Your task to perform on an android device: create a new album in the google photos Image 0: 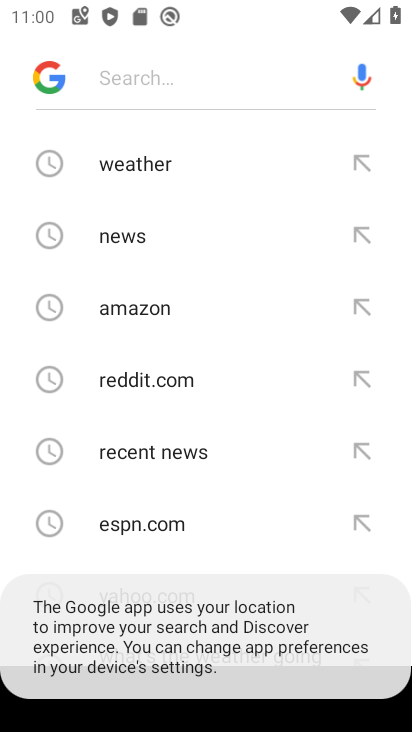
Step 0: press home button
Your task to perform on an android device: create a new album in the google photos Image 1: 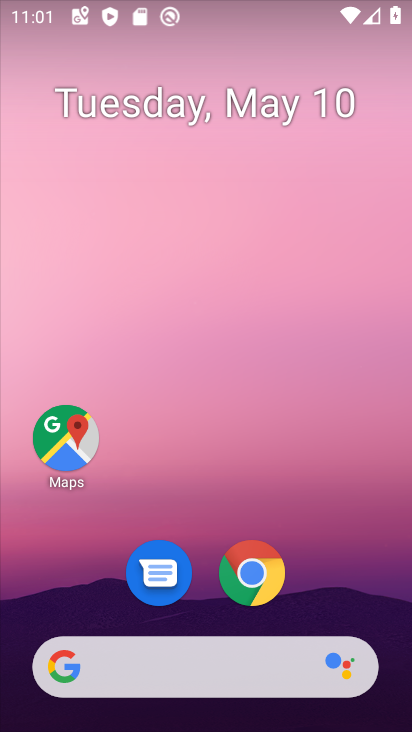
Step 1: drag from (213, 726) to (219, 103)
Your task to perform on an android device: create a new album in the google photos Image 2: 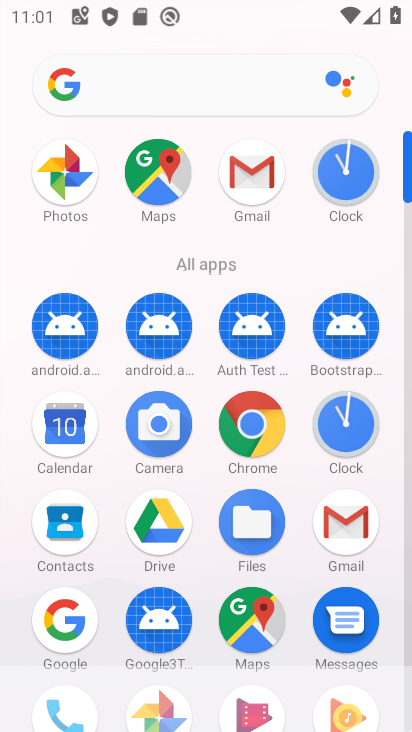
Step 2: click (65, 178)
Your task to perform on an android device: create a new album in the google photos Image 3: 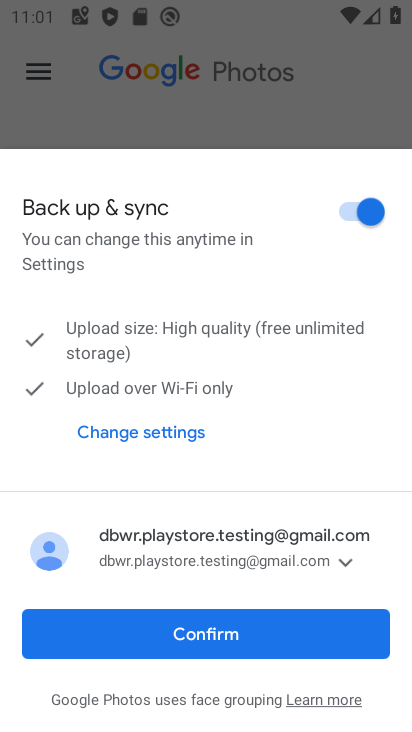
Step 3: click (197, 635)
Your task to perform on an android device: create a new album in the google photos Image 4: 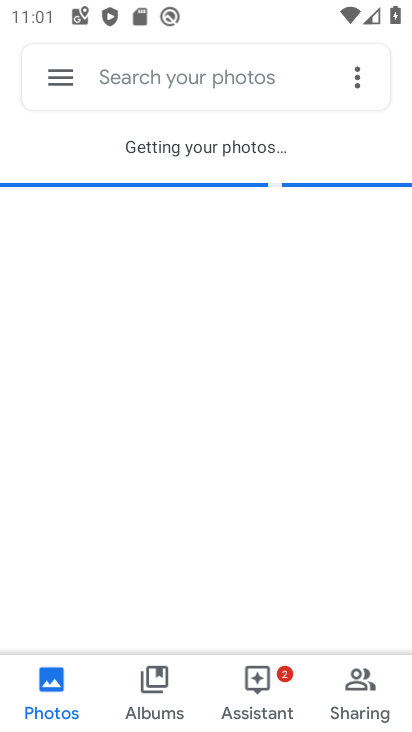
Step 4: click (359, 82)
Your task to perform on an android device: create a new album in the google photos Image 5: 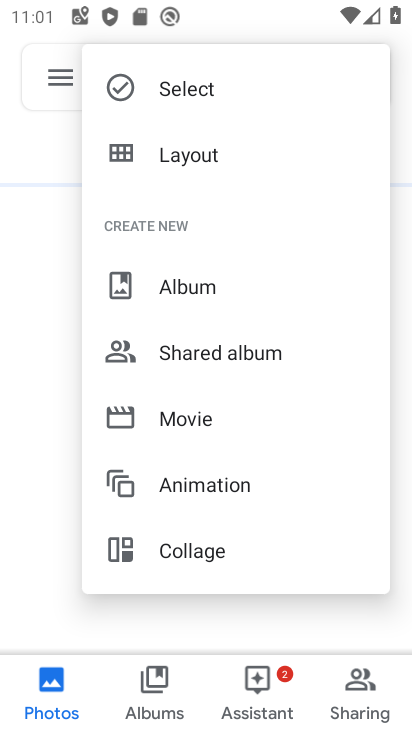
Step 5: click (190, 286)
Your task to perform on an android device: create a new album in the google photos Image 6: 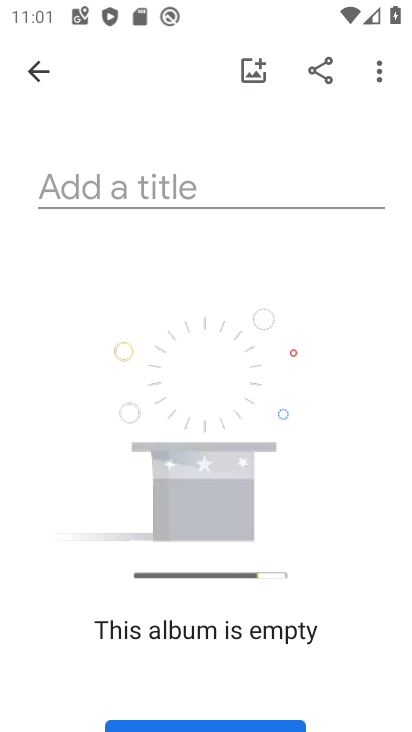
Step 6: click (159, 171)
Your task to perform on an android device: create a new album in the google photos Image 7: 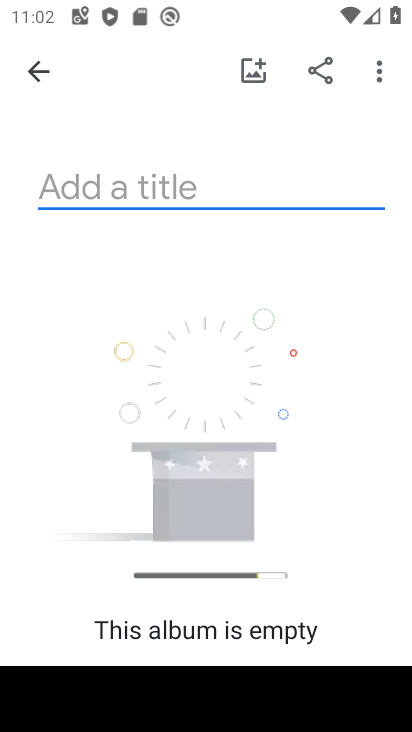
Step 7: type "zombi land"
Your task to perform on an android device: create a new album in the google photos Image 8: 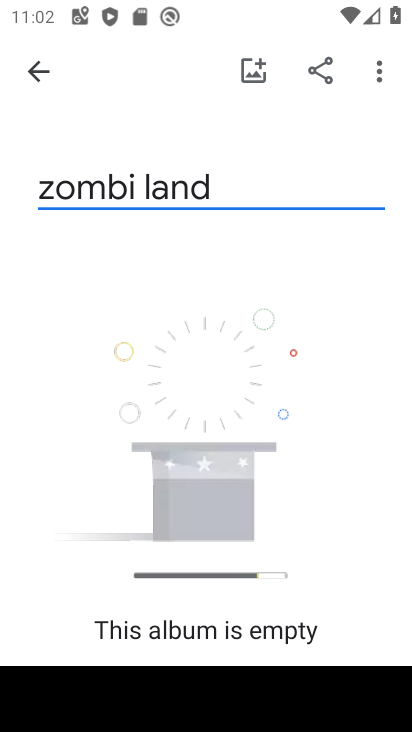
Step 8: type ""
Your task to perform on an android device: create a new album in the google photos Image 9: 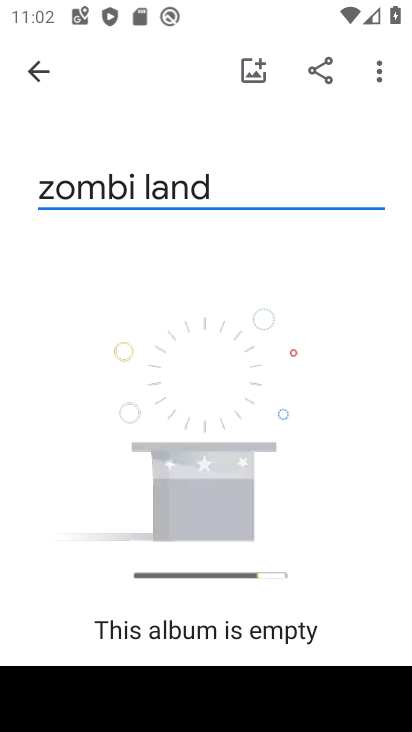
Step 9: click (176, 341)
Your task to perform on an android device: create a new album in the google photos Image 10: 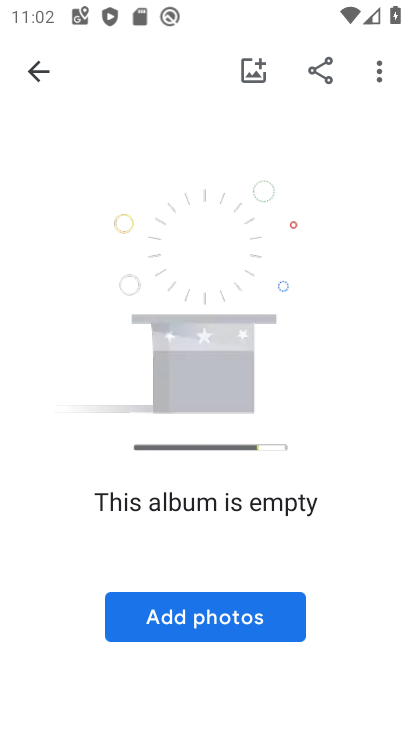
Step 10: click (216, 605)
Your task to perform on an android device: create a new album in the google photos Image 11: 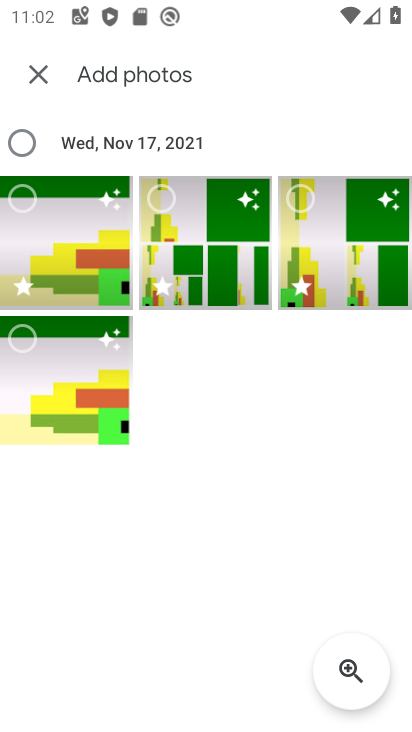
Step 11: click (22, 188)
Your task to perform on an android device: create a new album in the google photos Image 12: 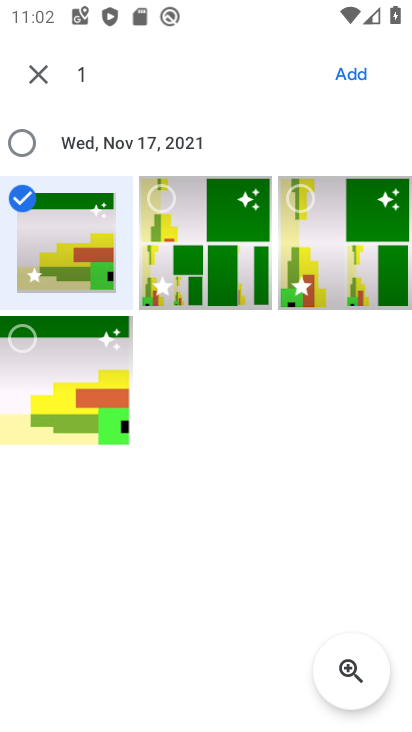
Step 12: click (354, 68)
Your task to perform on an android device: create a new album in the google photos Image 13: 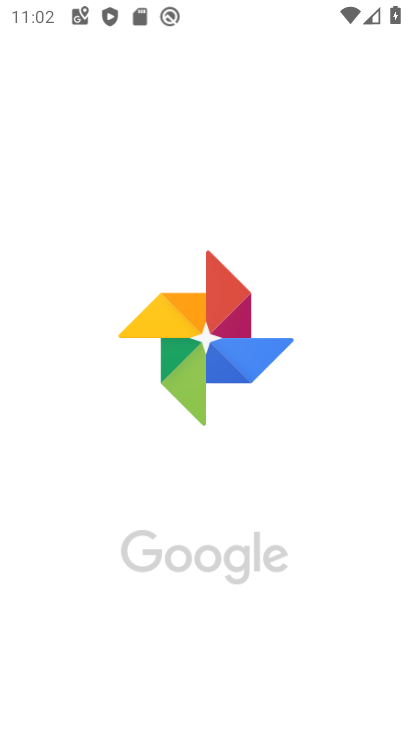
Step 13: task complete